Your task to perform on an android device: turn on airplane mode Image 0: 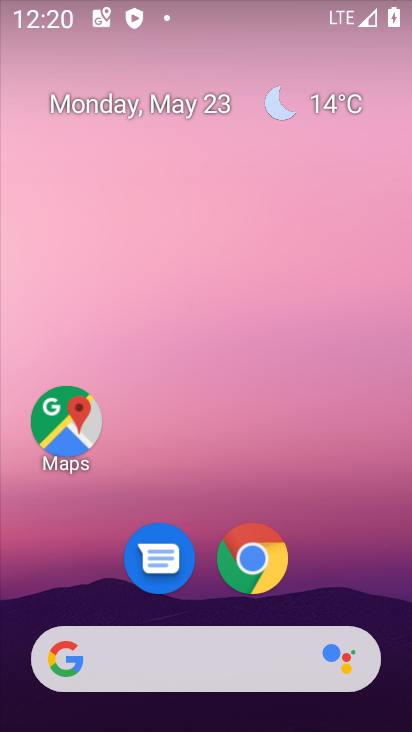
Step 0: drag from (341, 615) to (294, 4)
Your task to perform on an android device: turn on airplane mode Image 1: 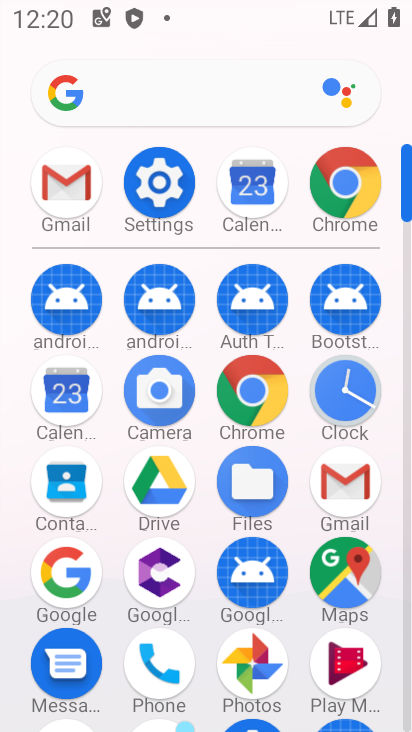
Step 1: click (160, 185)
Your task to perform on an android device: turn on airplane mode Image 2: 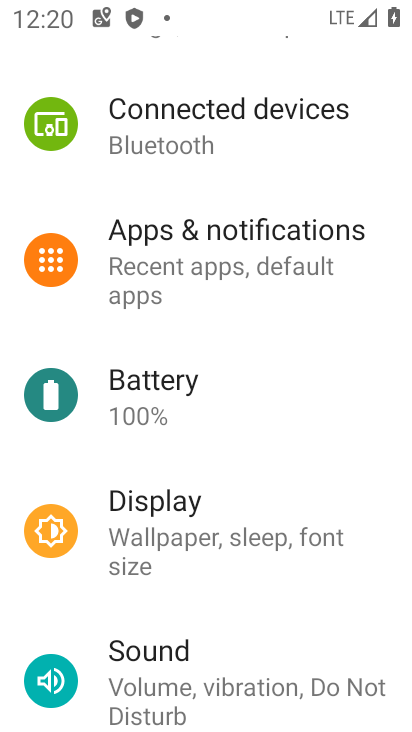
Step 2: drag from (204, 191) to (219, 513)
Your task to perform on an android device: turn on airplane mode Image 3: 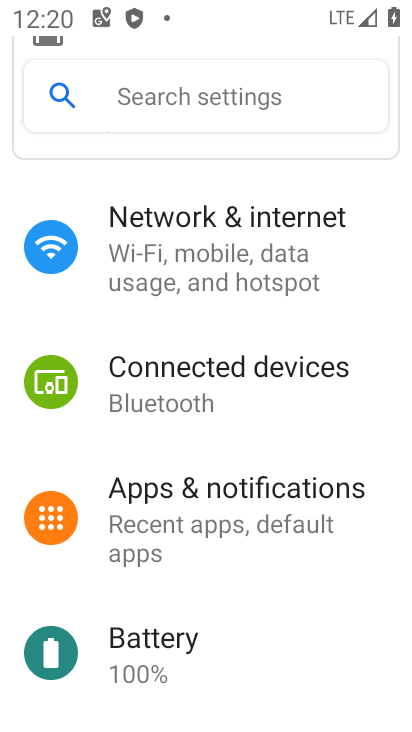
Step 3: click (204, 263)
Your task to perform on an android device: turn on airplane mode Image 4: 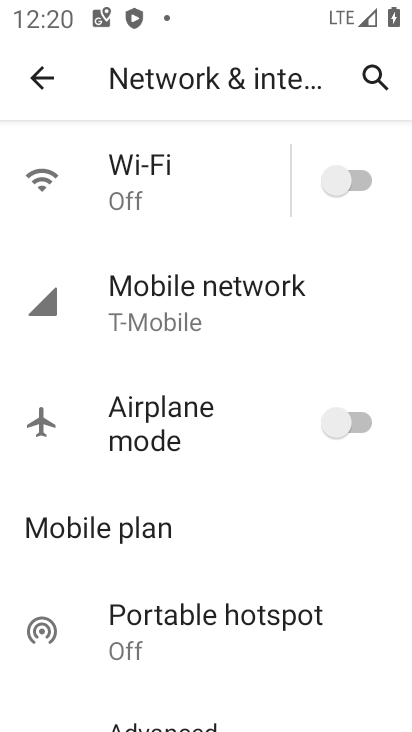
Step 4: click (335, 436)
Your task to perform on an android device: turn on airplane mode Image 5: 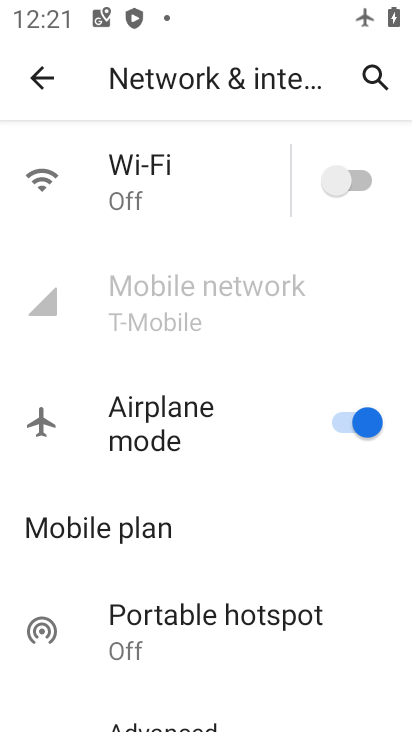
Step 5: task complete